Your task to perform on an android device: check data usage Image 0: 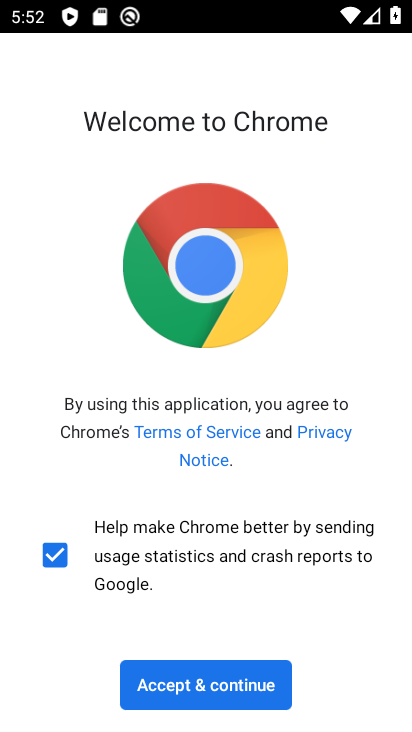
Step 0: press home button
Your task to perform on an android device: check data usage Image 1: 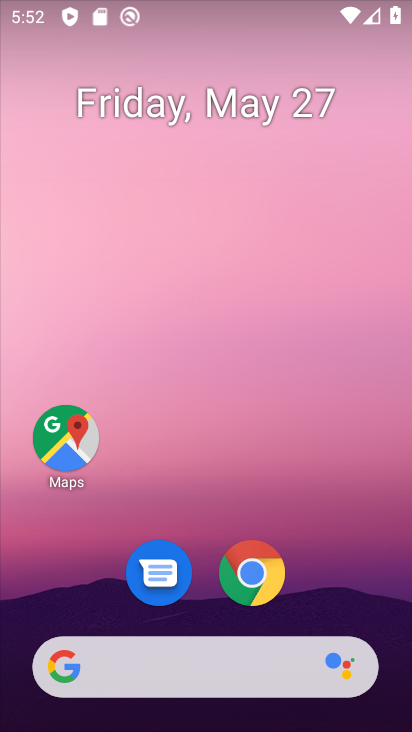
Step 1: drag from (209, 607) to (212, 2)
Your task to perform on an android device: check data usage Image 2: 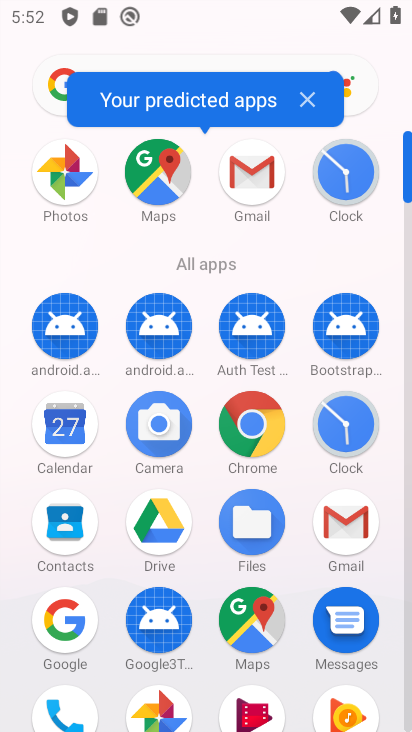
Step 2: drag from (206, 474) to (231, 60)
Your task to perform on an android device: check data usage Image 3: 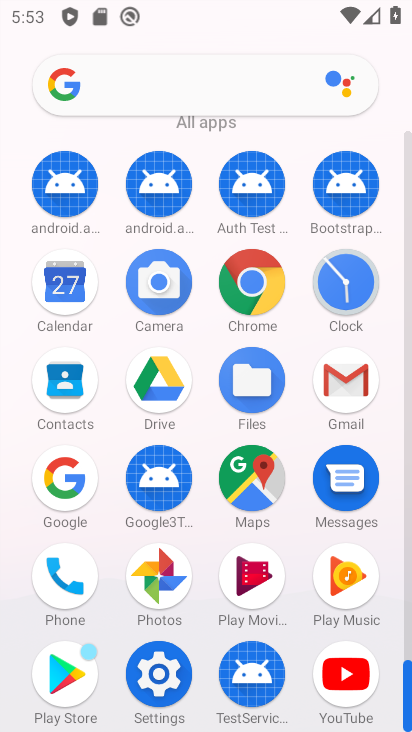
Step 3: click (155, 671)
Your task to perform on an android device: check data usage Image 4: 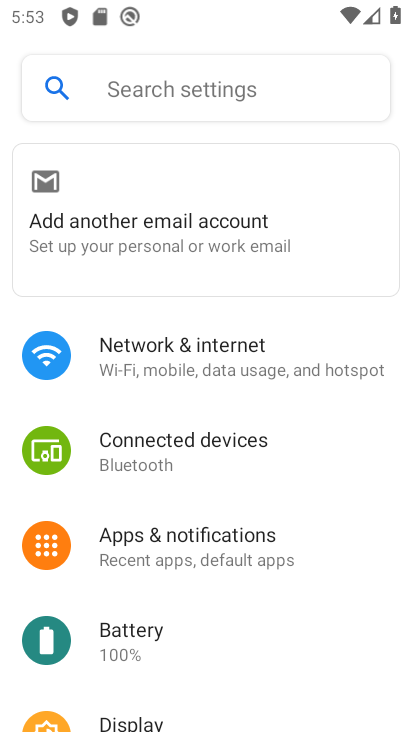
Step 4: click (183, 365)
Your task to perform on an android device: check data usage Image 5: 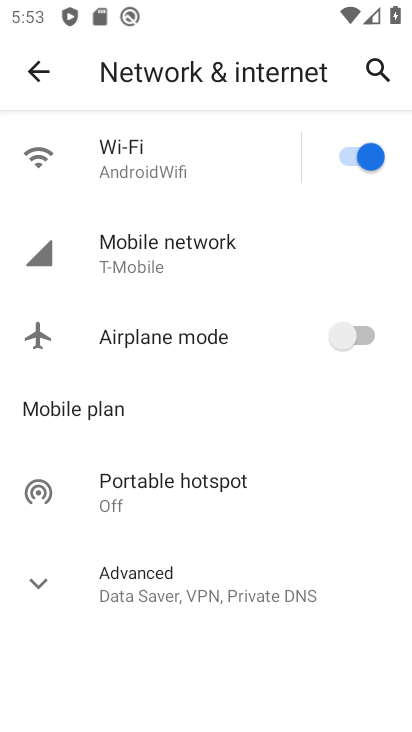
Step 5: click (190, 240)
Your task to perform on an android device: check data usage Image 6: 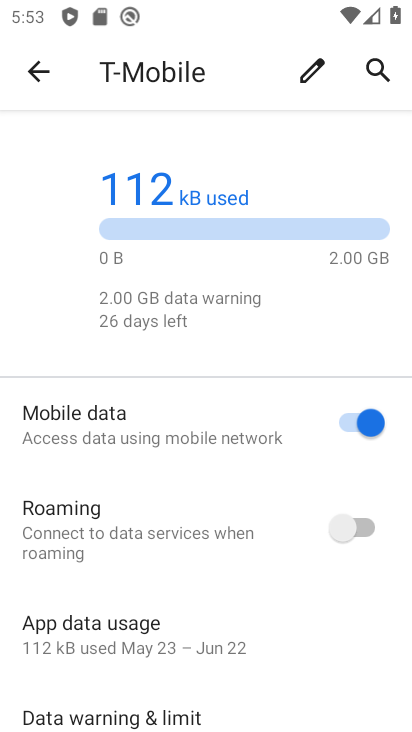
Step 6: click (191, 637)
Your task to perform on an android device: check data usage Image 7: 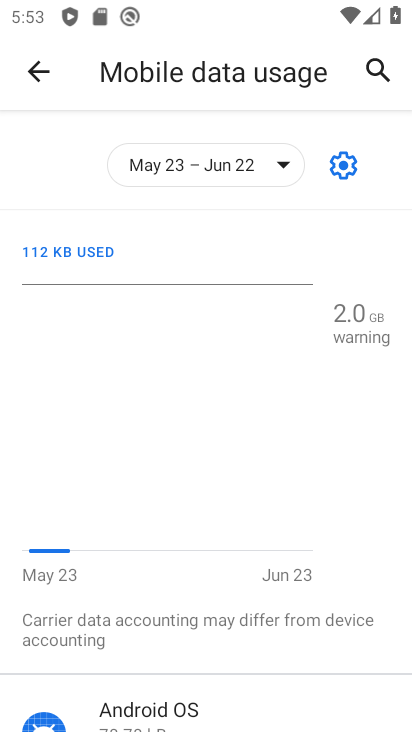
Step 7: task complete